Your task to perform on an android device: turn on the 24-hour format for clock Image 0: 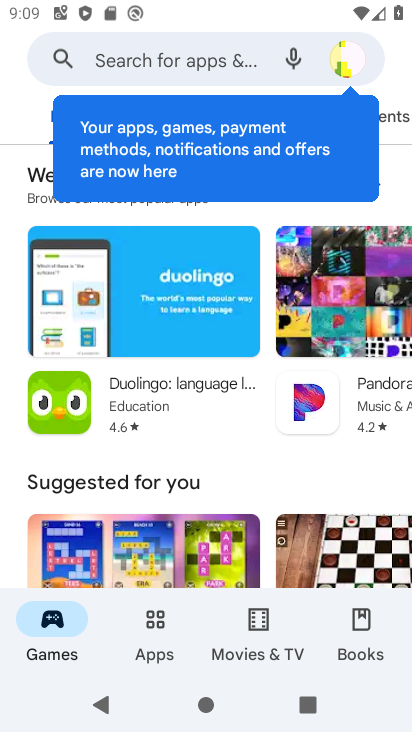
Step 0: press home button
Your task to perform on an android device: turn on the 24-hour format for clock Image 1: 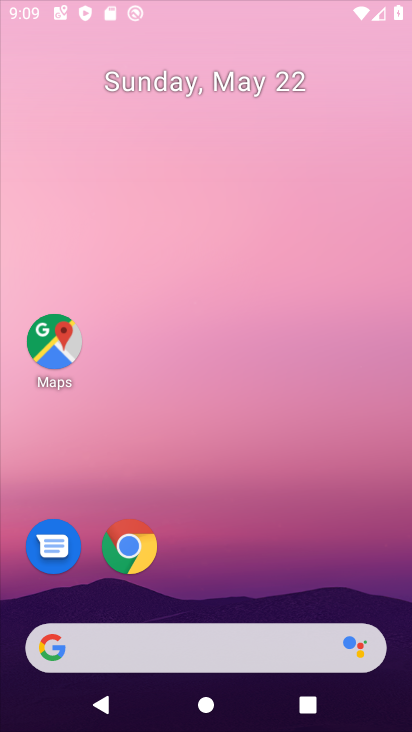
Step 1: drag from (219, 542) to (220, 144)
Your task to perform on an android device: turn on the 24-hour format for clock Image 2: 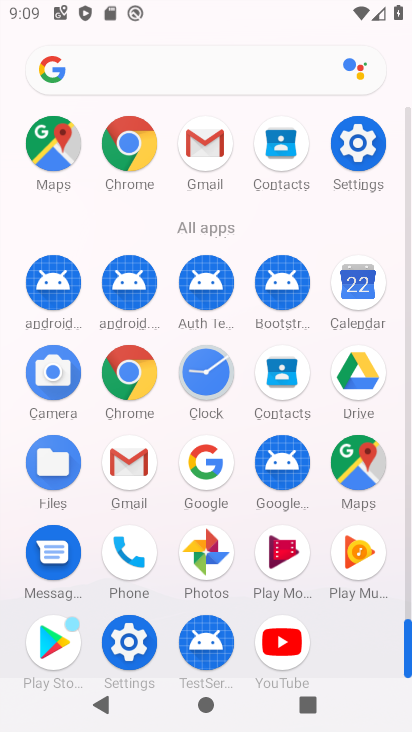
Step 2: click (196, 377)
Your task to perform on an android device: turn on the 24-hour format for clock Image 3: 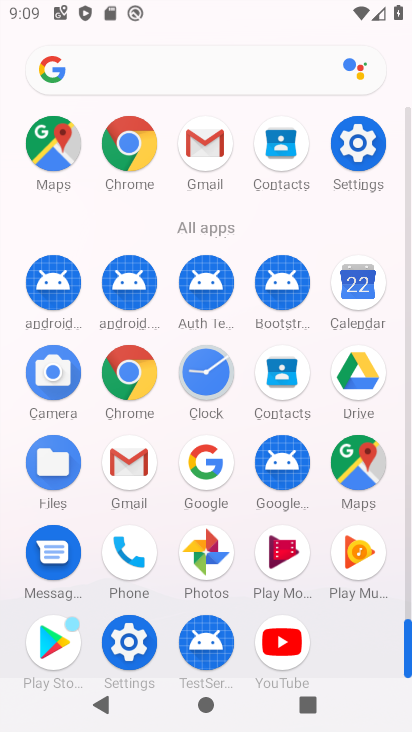
Step 3: click (196, 377)
Your task to perform on an android device: turn on the 24-hour format for clock Image 4: 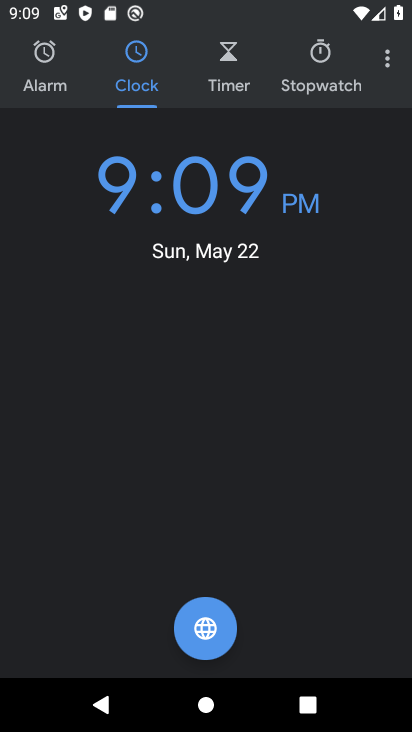
Step 4: click (386, 53)
Your task to perform on an android device: turn on the 24-hour format for clock Image 5: 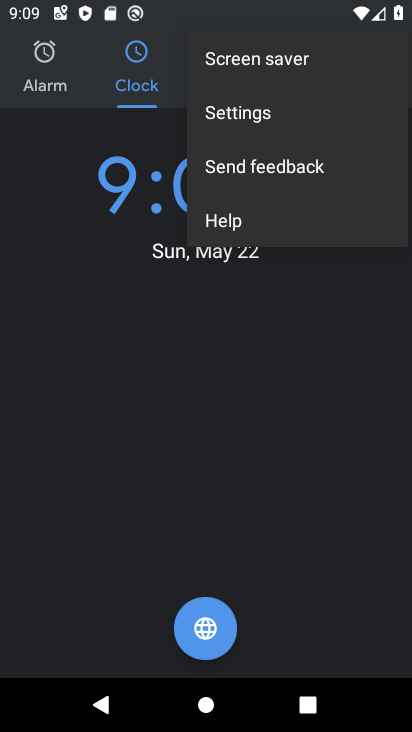
Step 5: click (259, 124)
Your task to perform on an android device: turn on the 24-hour format for clock Image 6: 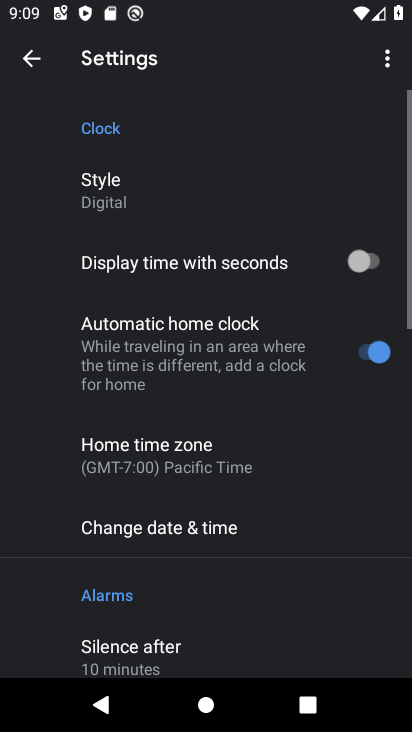
Step 6: click (231, 510)
Your task to perform on an android device: turn on the 24-hour format for clock Image 7: 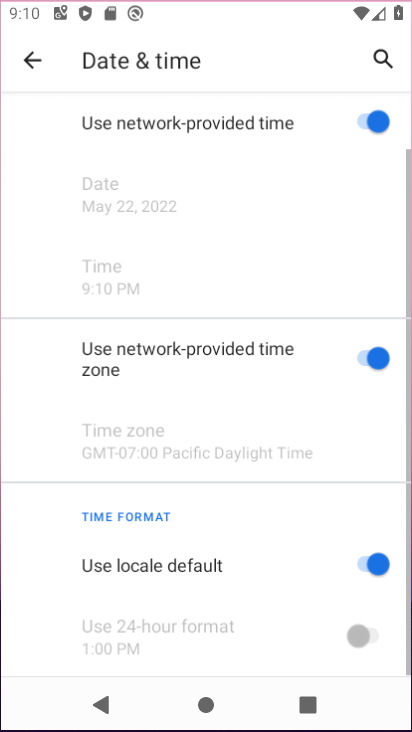
Step 7: drag from (227, 499) to (358, 16)
Your task to perform on an android device: turn on the 24-hour format for clock Image 8: 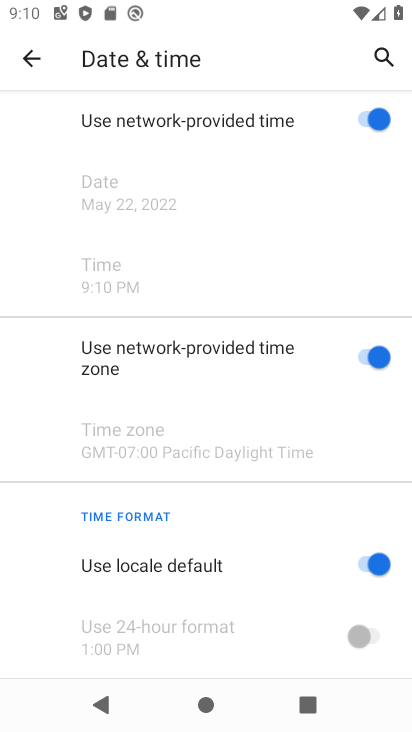
Step 8: click (364, 563)
Your task to perform on an android device: turn on the 24-hour format for clock Image 9: 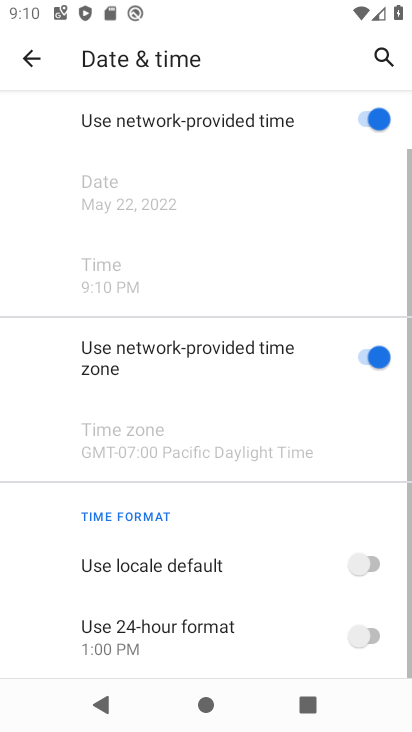
Step 9: click (359, 634)
Your task to perform on an android device: turn on the 24-hour format for clock Image 10: 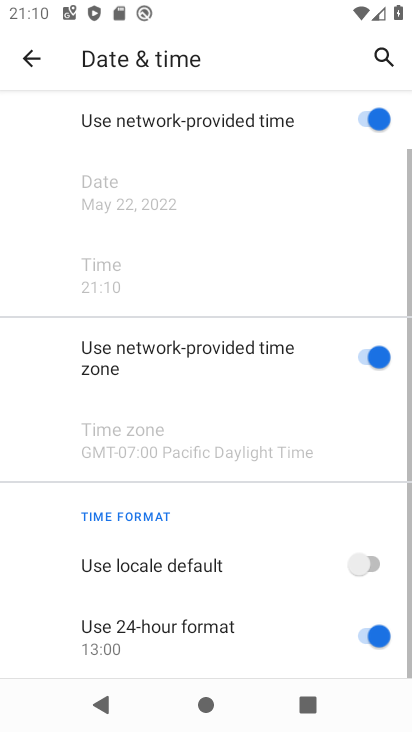
Step 10: task complete